Your task to perform on an android device: Go to eBay Image 0: 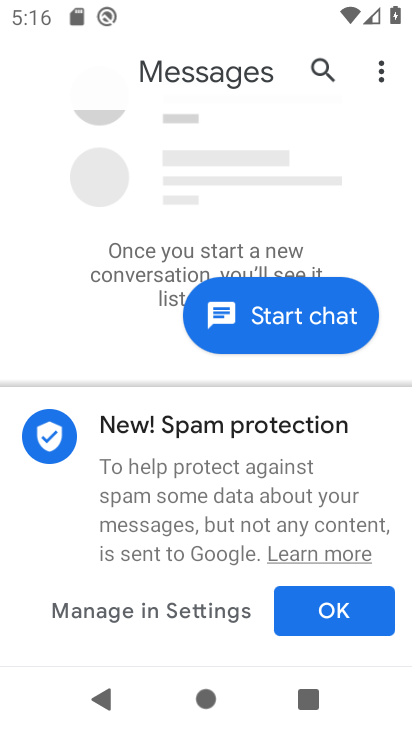
Step 0: press home button
Your task to perform on an android device: Go to eBay Image 1: 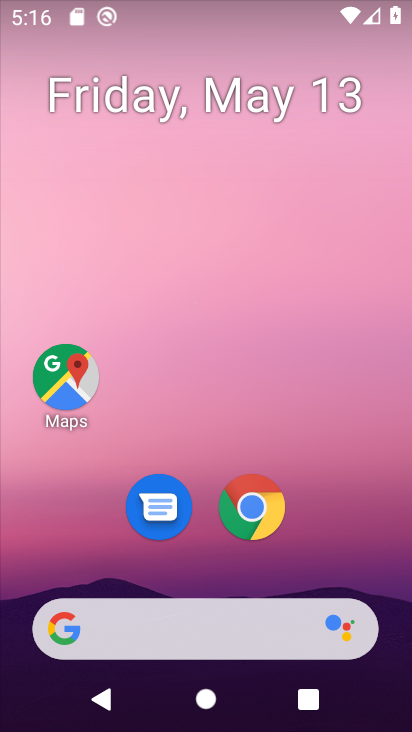
Step 1: click (262, 505)
Your task to perform on an android device: Go to eBay Image 2: 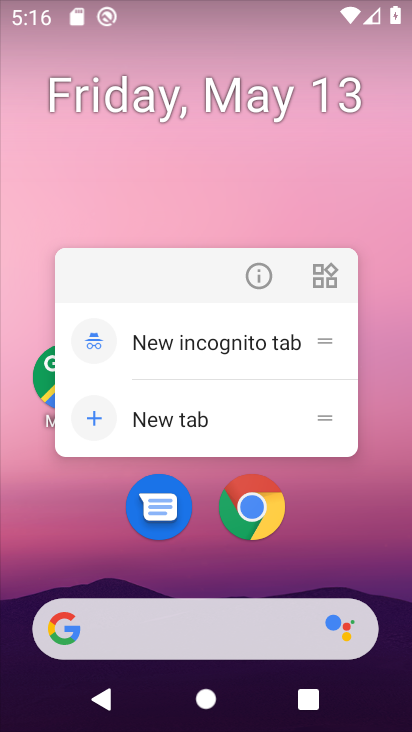
Step 2: click (260, 515)
Your task to perform on an android device: Go to eBay Image 3: 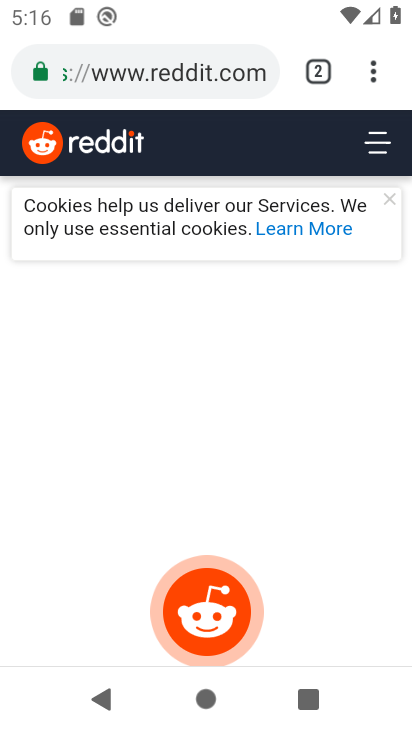
Step 3: click (369, 71)
Your task to perform on an android device: Go to eBay Image 4: 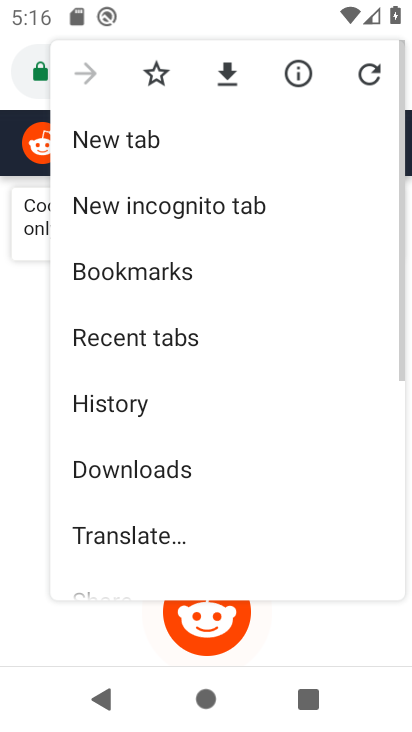
Step 4: click (103, 134)
Your task to perform on an android device: Go to eBay Image 5: 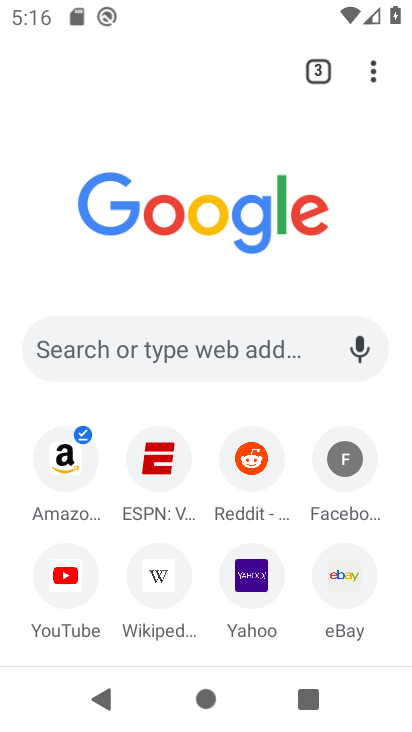
Step 5: click (348, 577)
Your task to perform on an android device: Go to eBay Image 6: 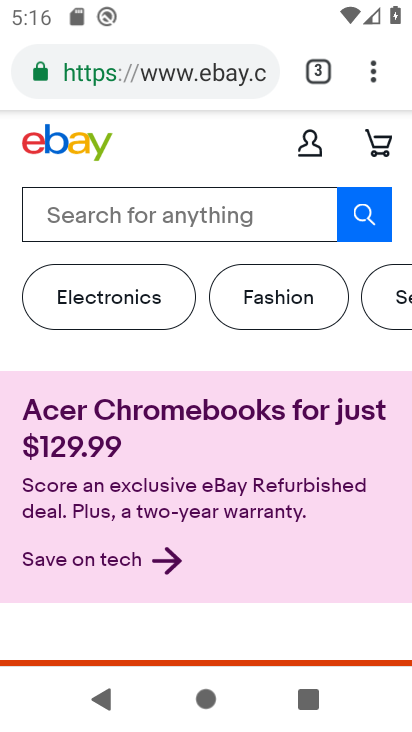
Step 6: task complete